Your task to perform on an android device: find photos in the google photos app Image 0: 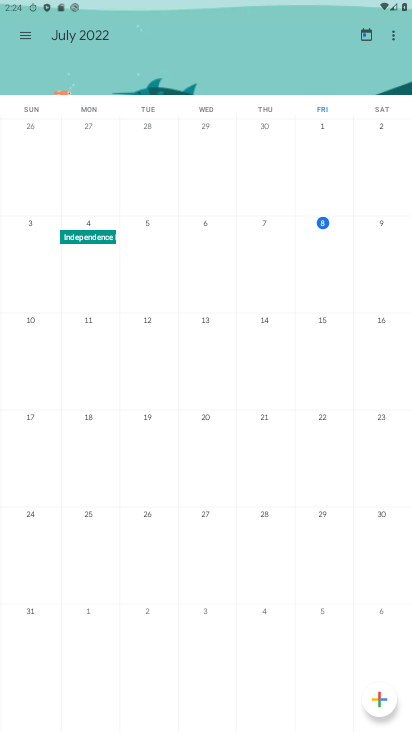
Step 0: press home button
Your task to perform on an android device: find photos in the google photos app Image 1: 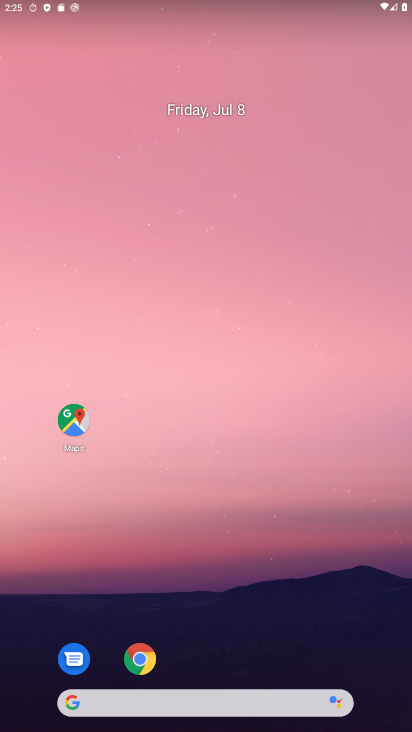
Step 1: drag from (269, 606) to (262, 71)
Your task to perform on an android device: find photos in the google photos app Image 2: 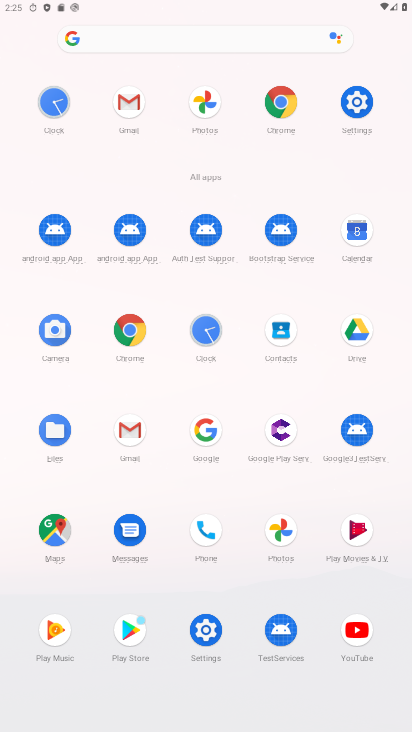
Step 2: click (284, 531)
Your task to perform on an android device: find photos in the google photos app Image 3: 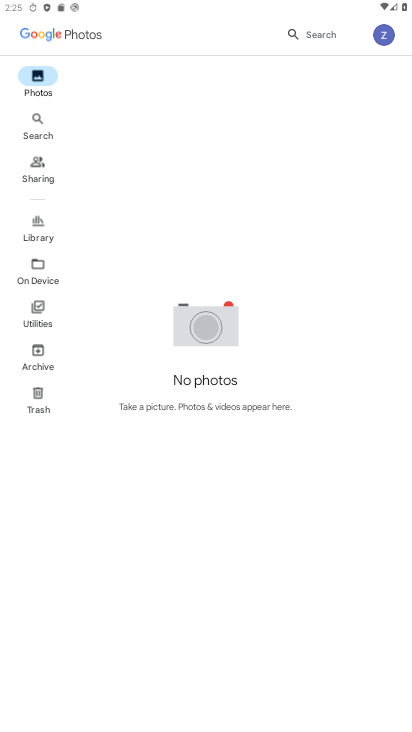
Step 3: task complete